Your task to perform on an android device: see sites visited before in the chrome app Image 0: 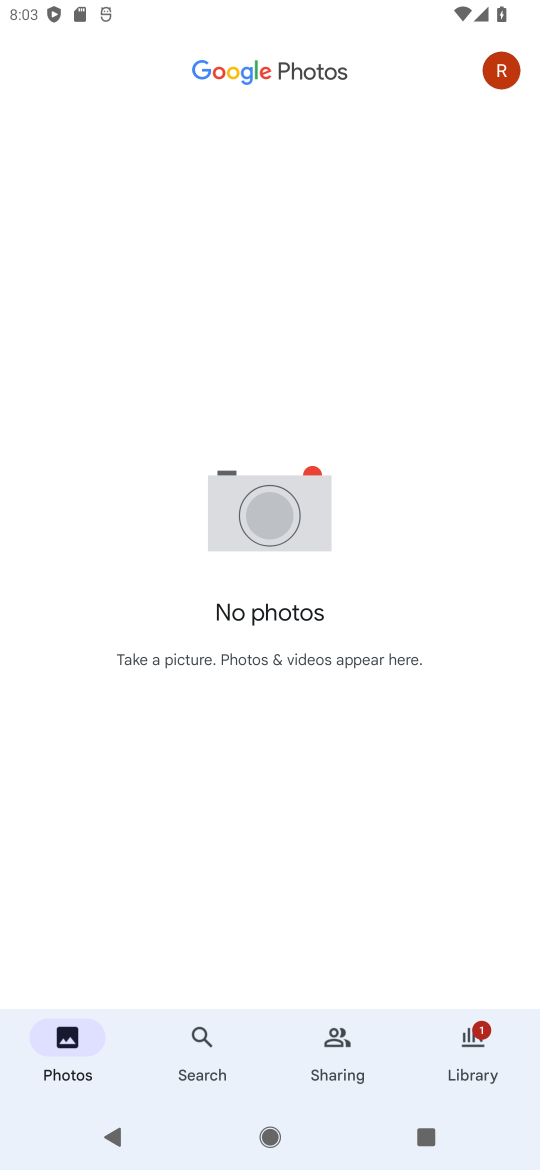
Step 0: press home button
Your task to perform on an android device: see sites visited before in the chrome app Image 1: 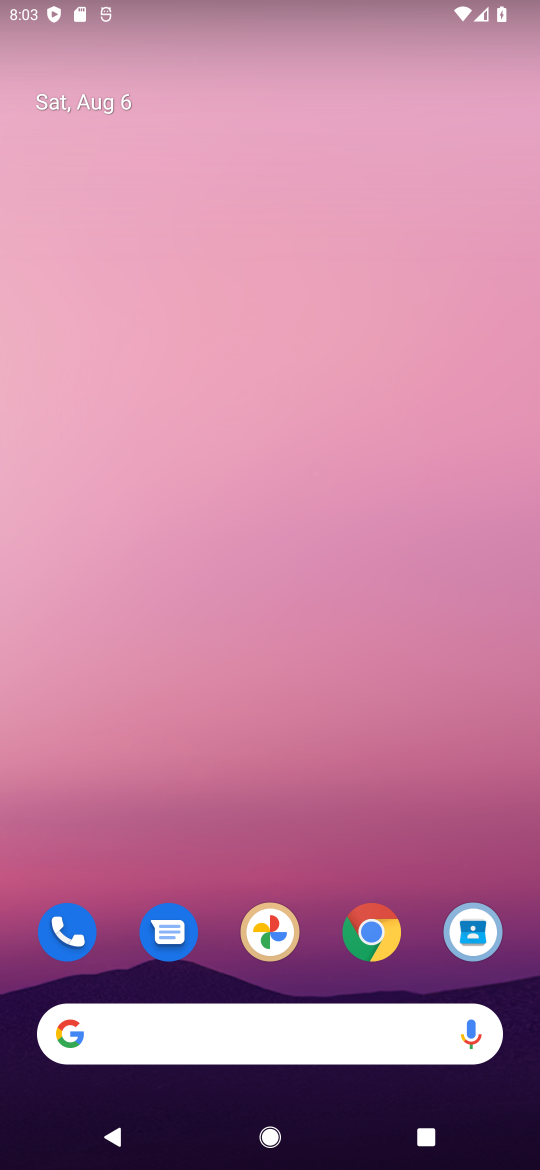
Step 1: click (367, 928)
Your task to perform on an android device: see sites visited before in the chrome app Image 2: 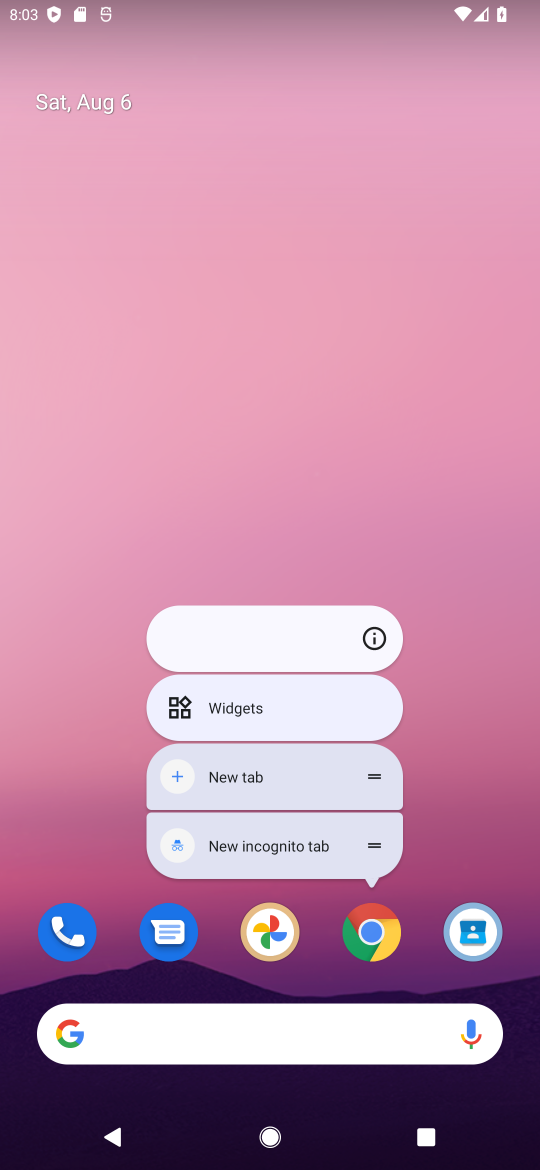
Step 2: click (367, 932)
Your task to perform on an android device: see sites visited before in the chrome app Image 3: 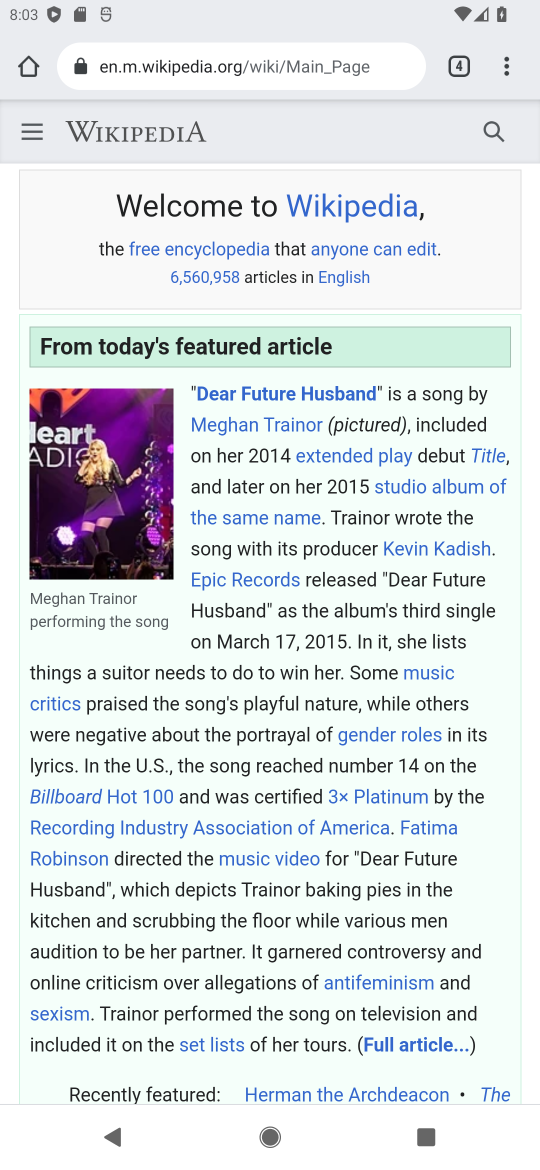
Step 3: task complete